Your task to perform on an android device: Open calendar and show me the third week of next month Image 0: 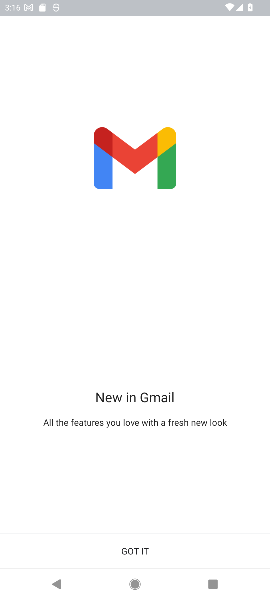
Step 0: press home button
Your task to perform on an android device: Open calendar and show me the third week of next month Image 1: 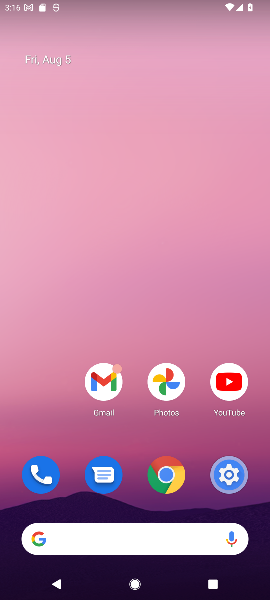
Step 1: drag from (247, 570) to (194, 91)
Your task to perform on an android device: Open calendar and show me the third week of next month Image 2: 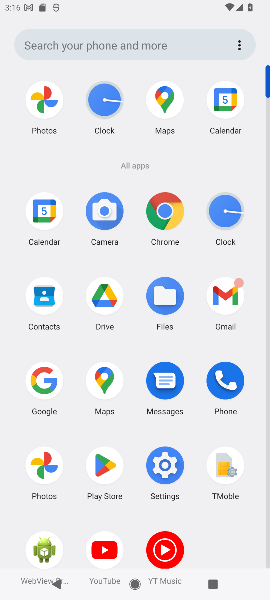
Step 2: drag from (41, 204) to (61, 355)
Your task to perform on an android device: Open calendar and show me the third week of next month Image 3: 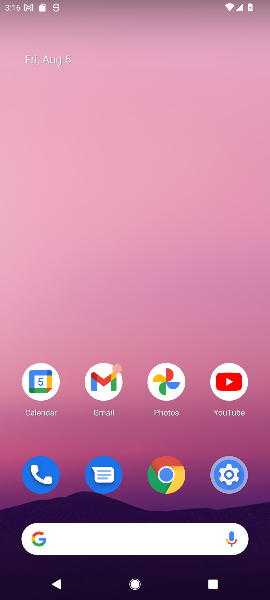
Step 3: click (42, 381)
Your task to perform on an android device: Open calendar and show me the third week of next month Image 4: 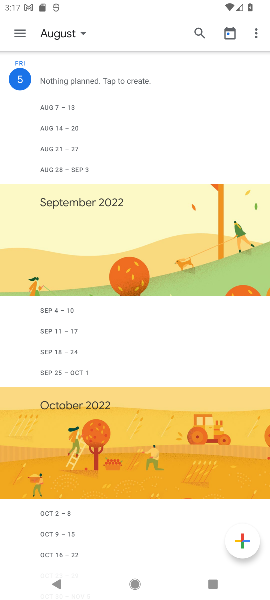
Step 4: click (84, 32)
Your task to perform on an android device: Open calendar and show me the third week of next month Image 5: 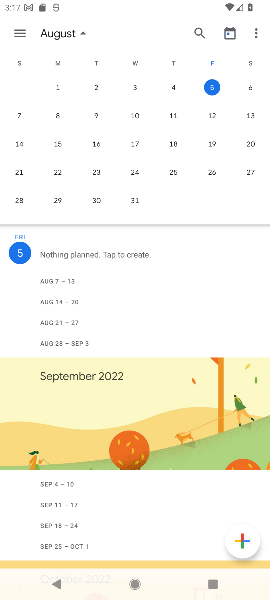
Step 5: drag from (261, 147) to (40, 132)
Your task to perform on an android device: Open calendar and show me the third week of next month Image 6: 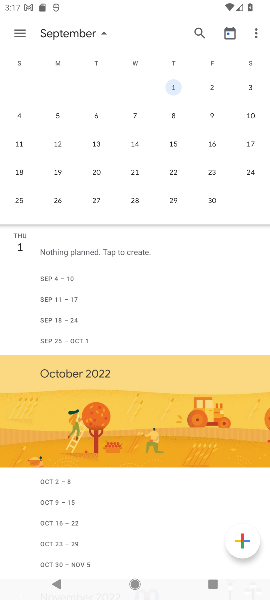
Step 6: click (174, 147)
Your task to perform on an android device: Open calendar and show me the third week of next month Image 7: 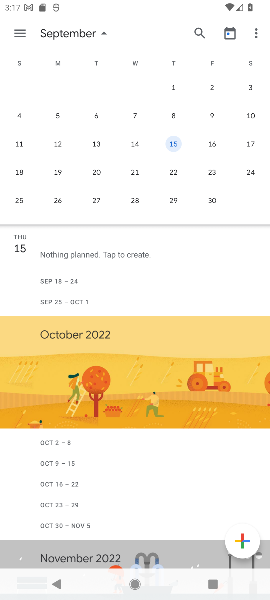
Step 7: task complete